Your task to perform on an android device: See recent photos Image 0: 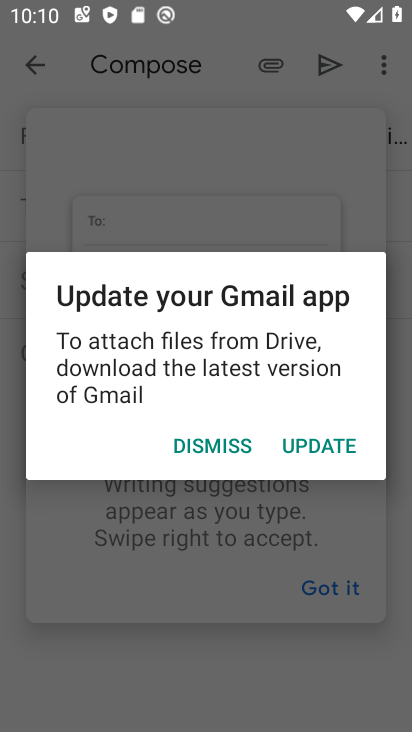
Step 0: press home button
Your task to perform on an android device: See recent photos Image 1: 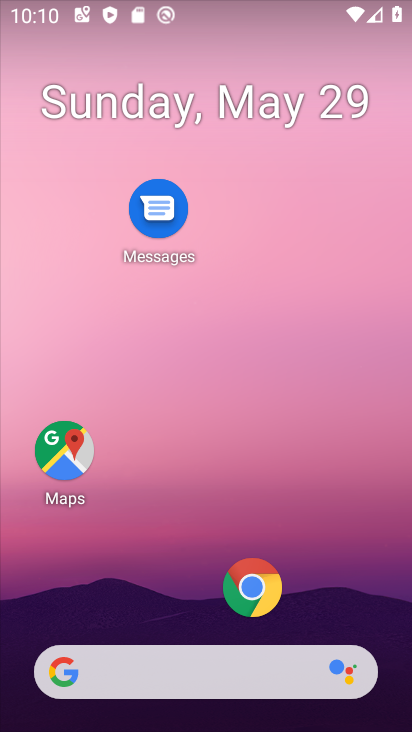
Step 1: click (153, 672)
Your task to perform on an android device: See recent photos Image 2: 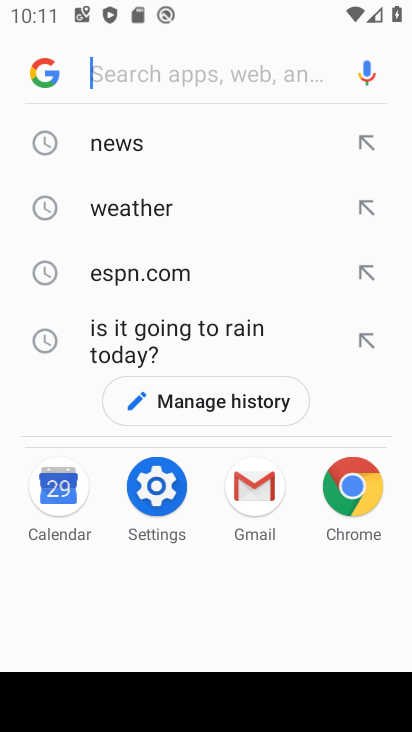
Step 2: type "recent photos"
Your task to perform on an android device: See recent photos Image 3: 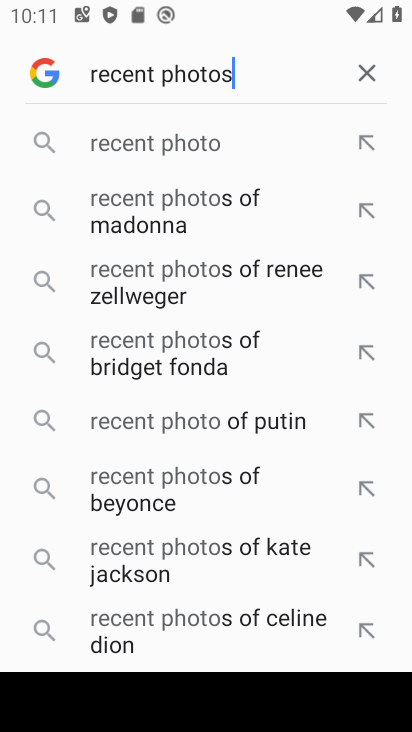
Step 3: press home button
Your task to perform on an android device: See recent photos Image 4: 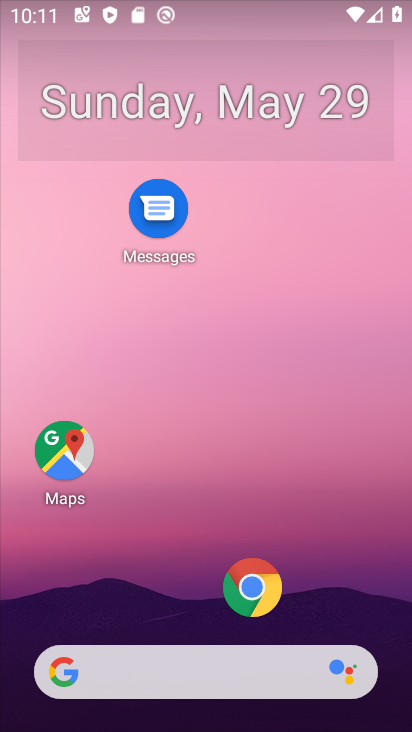
Step 4: drag from (161, 582) to (292, 0)
Your task to perform on an android device: See recent photos Image 5: 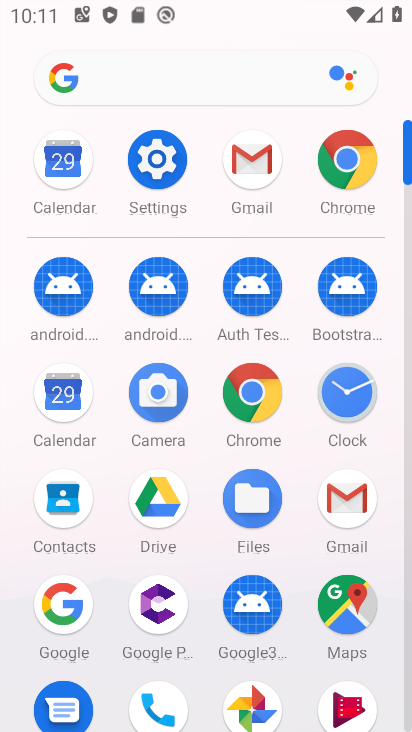
Step 5: click (247, 711)
Your task to perform on an android device: See recent photos Image 6: 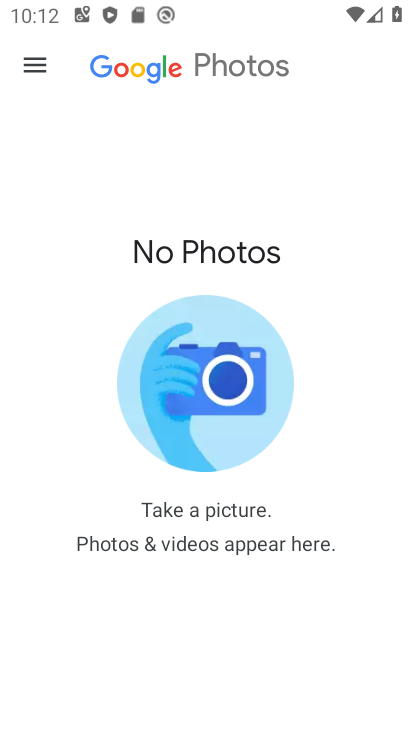
Step 6: task complete